Your task to perform on an android device: install app "Fetch Rewards" Image 0: 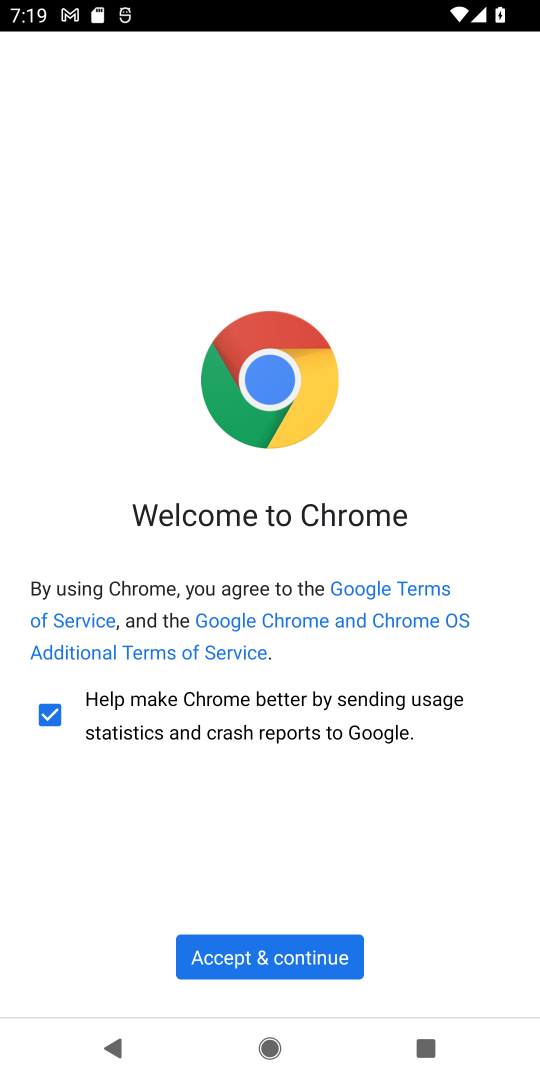
Step 0: press home button
Your task to perform on an android device: install app "Fetch Rewards" Image 1: 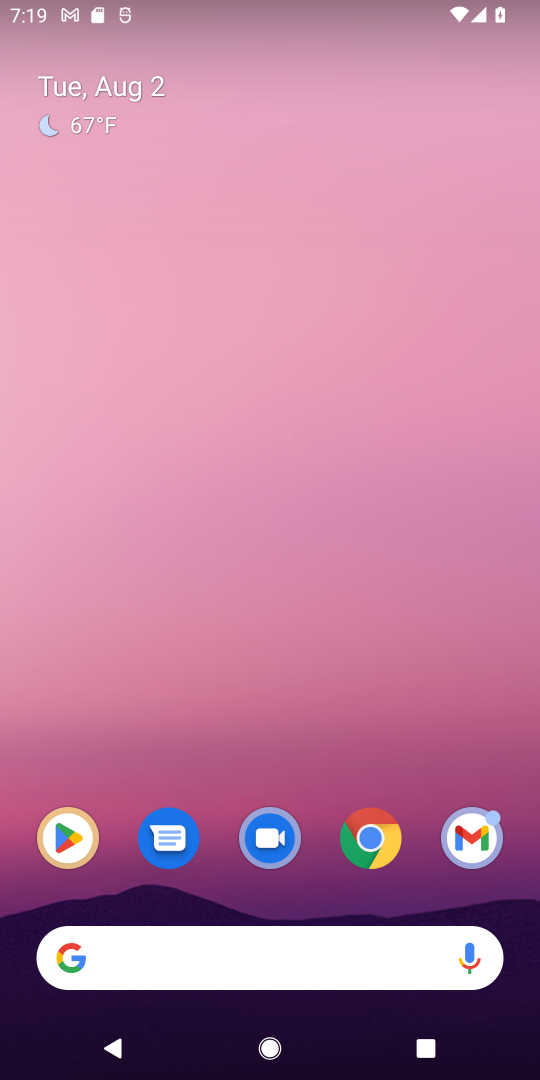
Step 1: click (53, 849)
Your task to perform on an android device: install app "Fetch Rewards" Image 2: 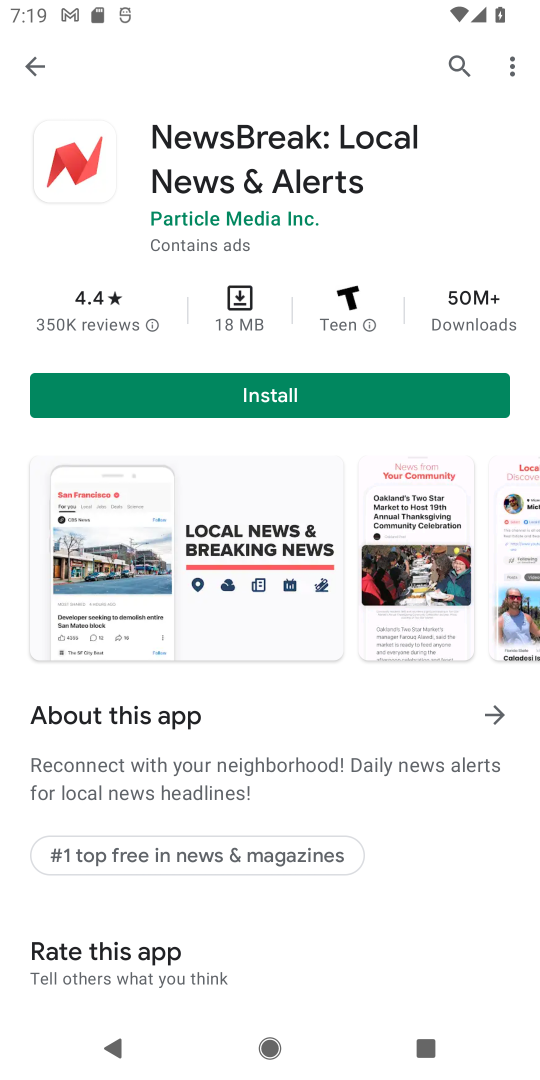
Step 2: click (458, 52)
Your task to perform on an android device: install app "Fetch Rewards" Image 3: 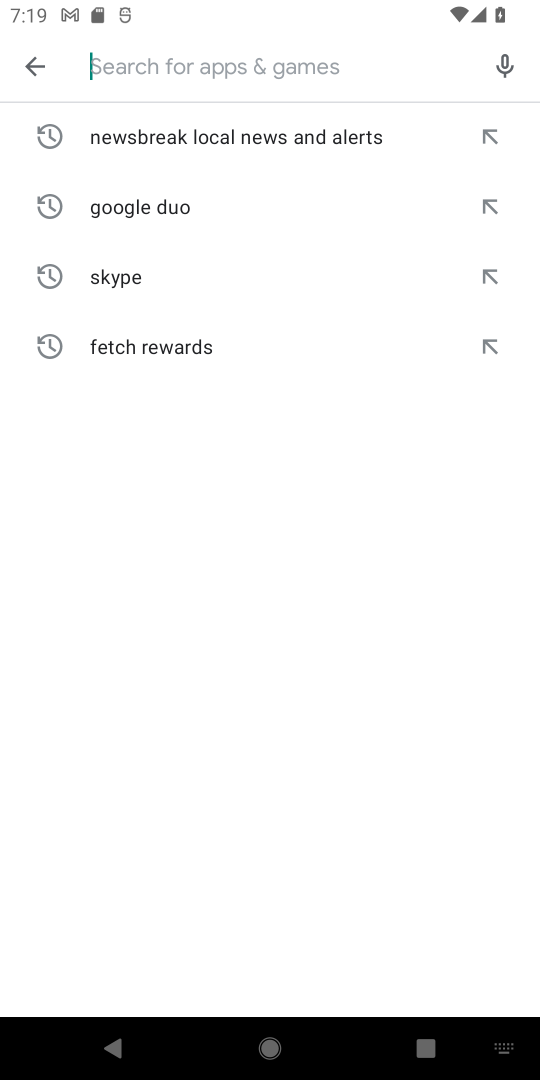
Step 3: type "fetch rewards"
Your task to perform on an android device: install app "Fetch Rewards" Image 4: 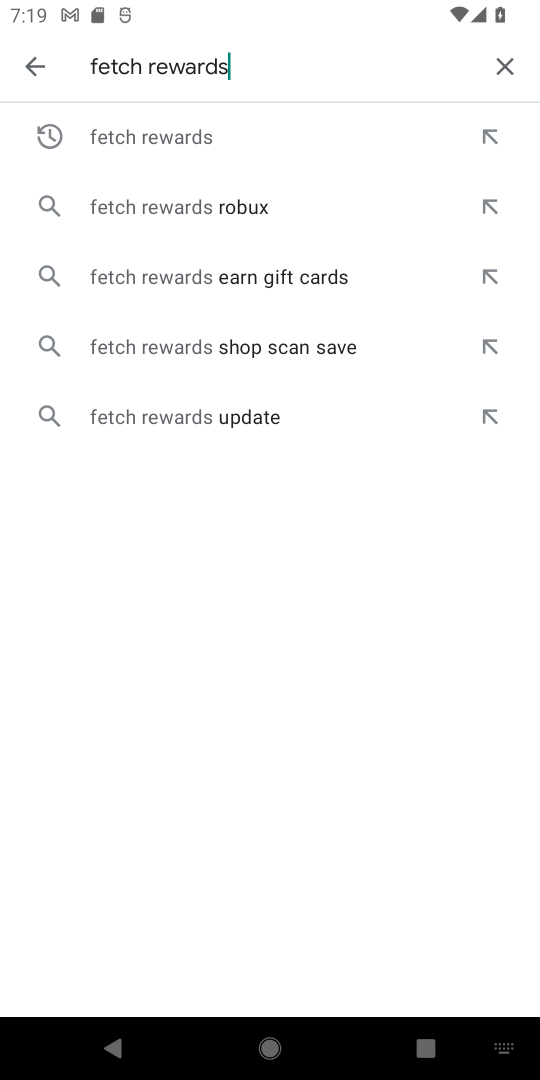
Step 4: click (202, 126)
Your task to perform on an android device: install app "Fetch Rewards" Image 5: 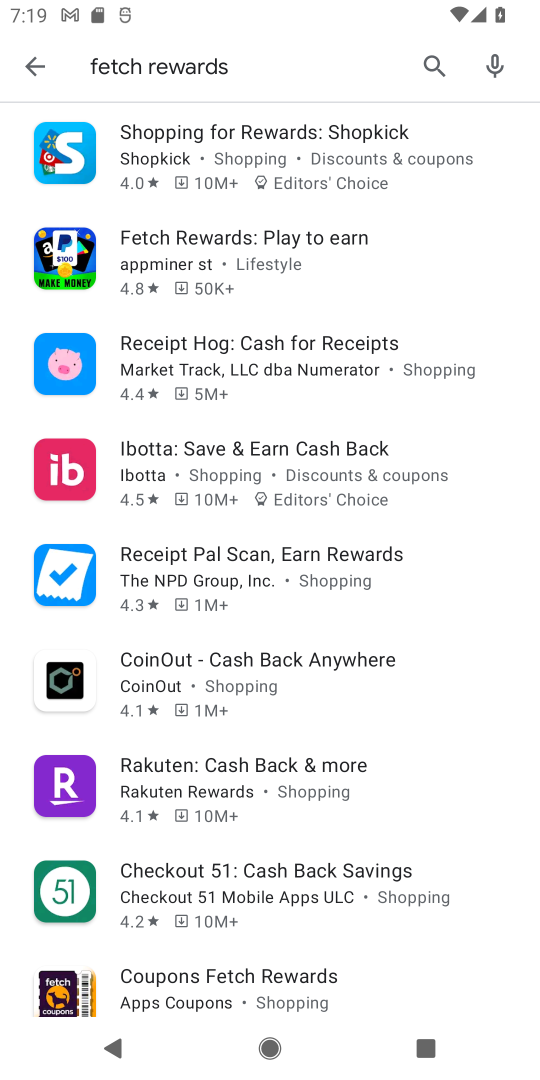
Step 5: click (179, 272)
Your task to perform on an android device: install app "Fetch Rewards" Image 6: 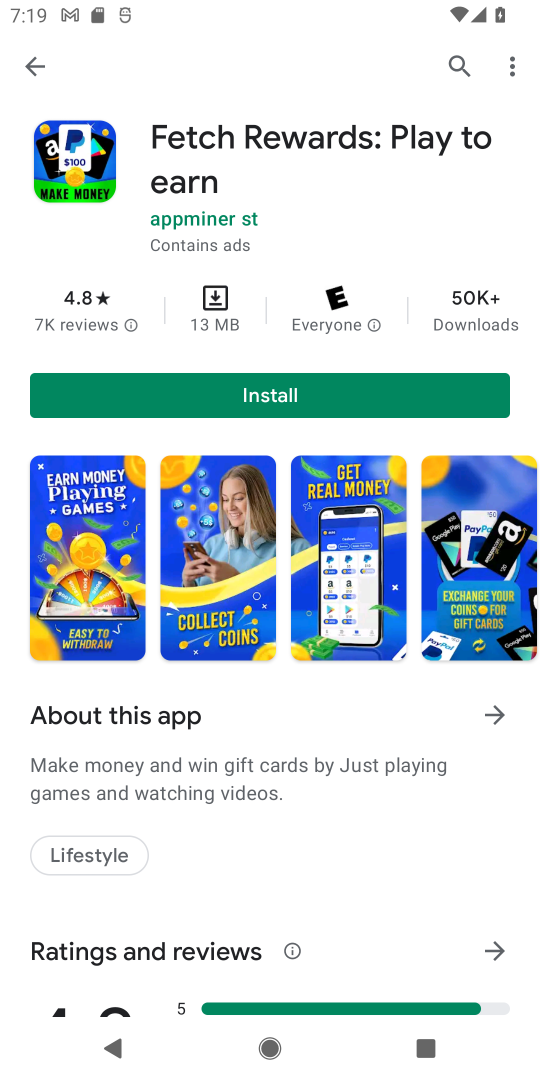
Step 6: click (269, 386)
Your task to perform on an android device: install app "Fetch Rewards" Image 7: 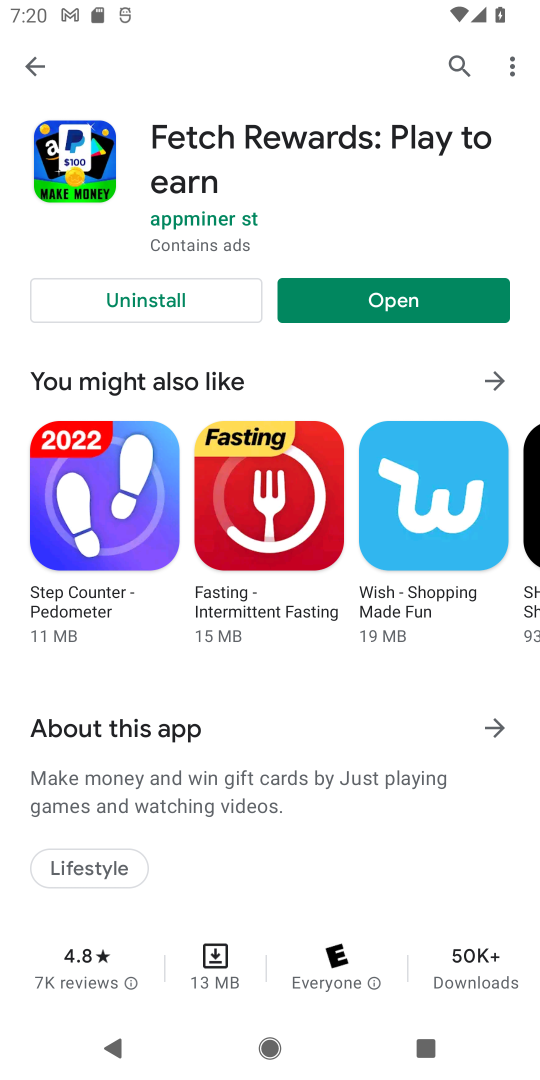
Step 7: task complete